Your task to perform on an android device: What's the weather today? Image 0: 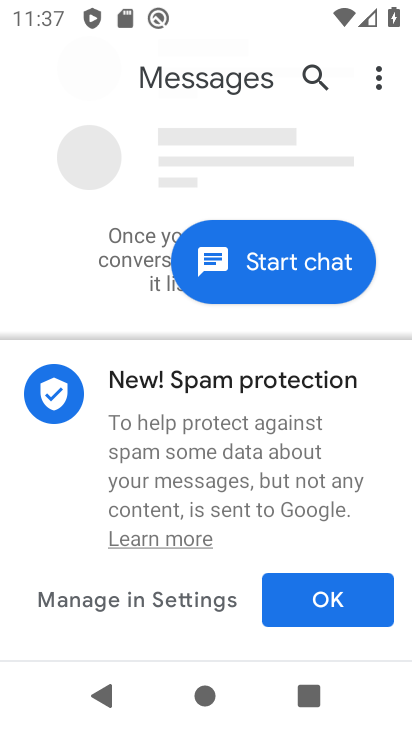
Step 0: press home button
Your task to perform on an android device: What's the weather today? Image 1: 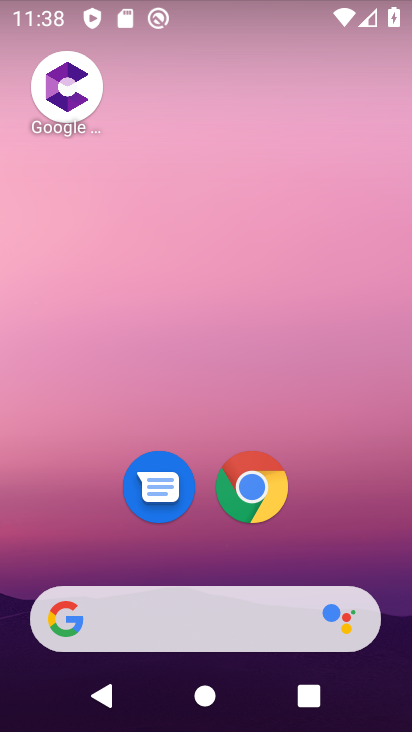
Step 1: click (133, 618)
Your task to perform on an android device: What's the weather today? Image 2: 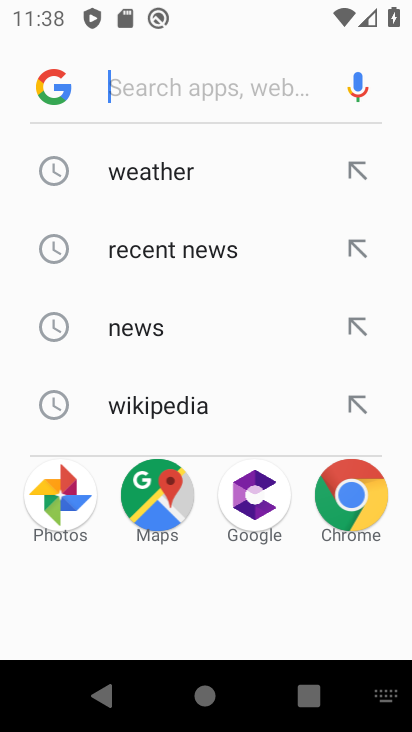
Step 2: click (171, 156)
Your task to perform on an android device: What's the weather today? Image 3: 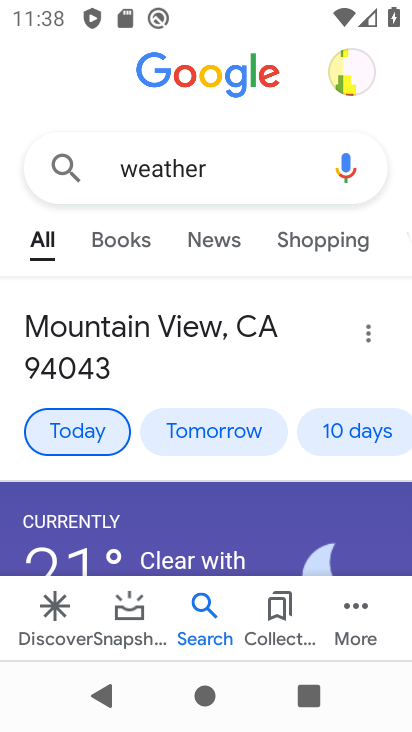
Step 3: task complete